Your task to perform on an android device: turn off notifications in google photos Image 0: 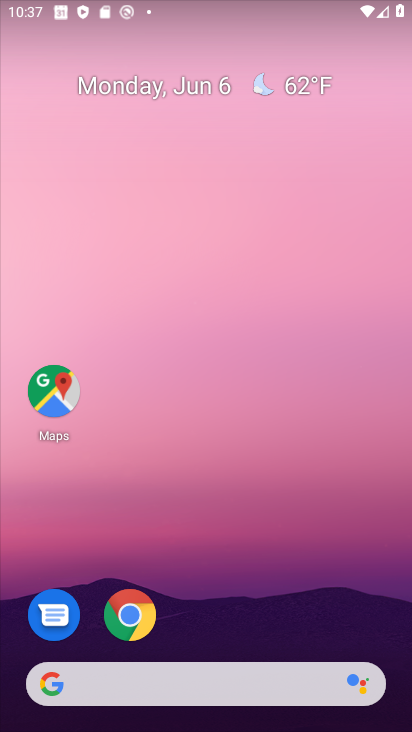
Step 0: drag from (246, 677) to (219, 120)
Your task to perform on an android device: turn off notifications in google photos Image 1: 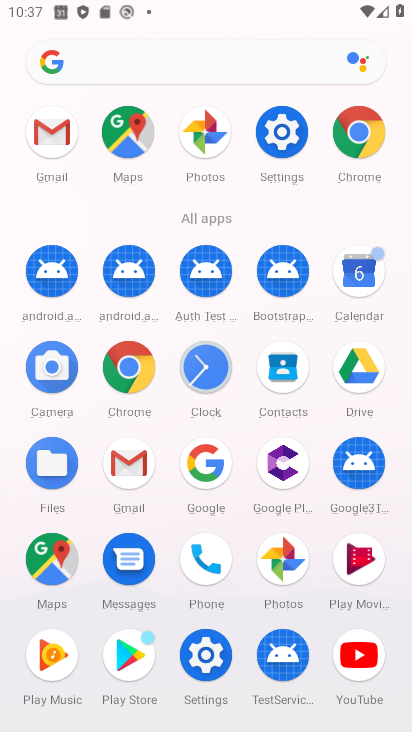
Step 1: click (284, 568)
Your task to perform on an android device: turn off notifications in google photos Image 2: 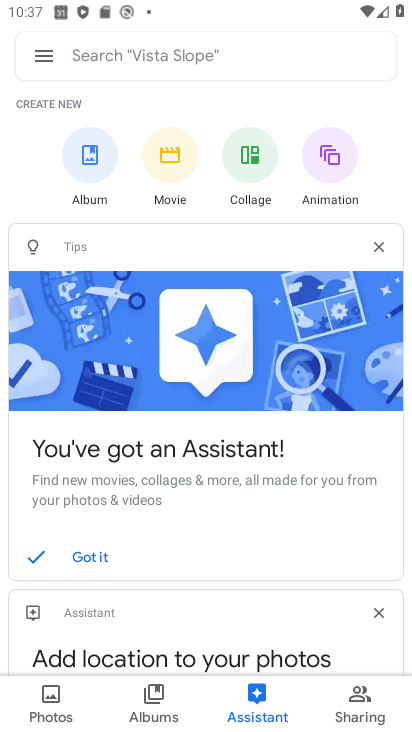
Step 2: click (42, 57)
Your task to perform on an android device: turn off notifications in google photos Image 3: 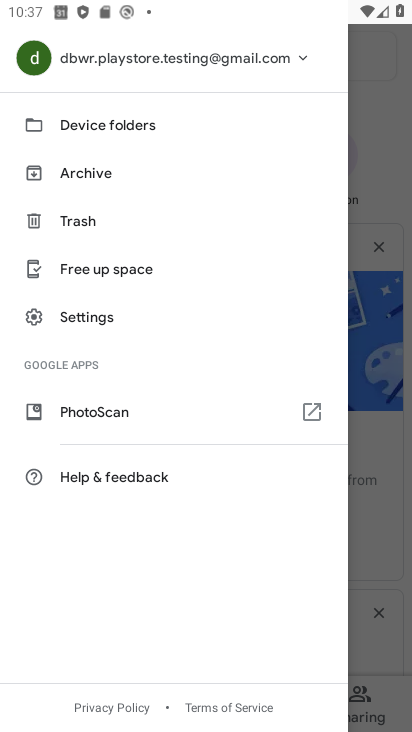
Step 3: click (74, 318)
Your task to perform on an android device: turn off notifications in google photos Image 4: 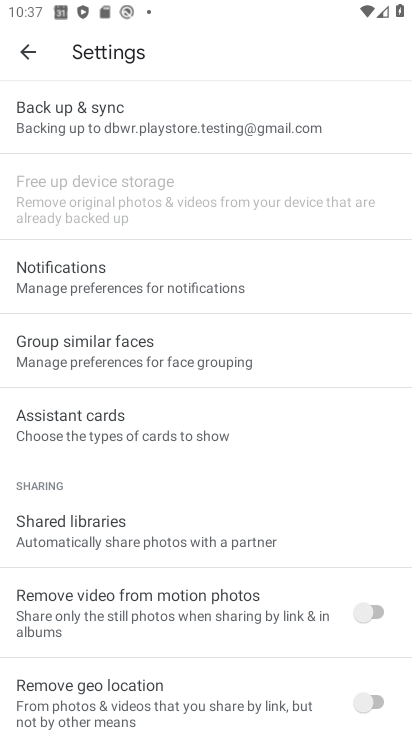
Step 4: click (72, 280)
Your task to perform on an android device: turn off notifications in google photos Image 5: 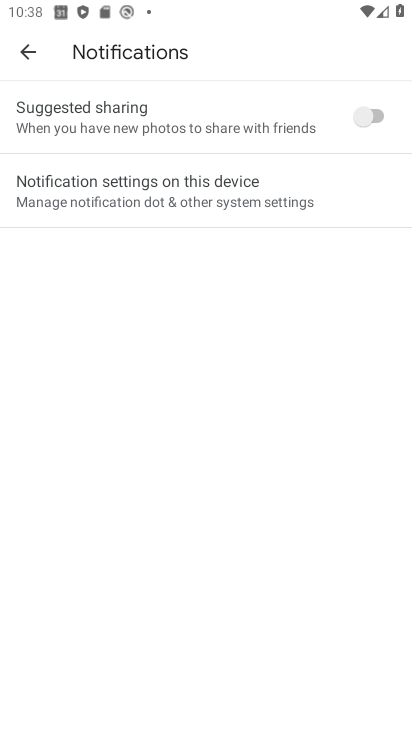
Step 5: click (72, 280)
Your task to perform on an android device: turn off notifications in google photos Image 6: 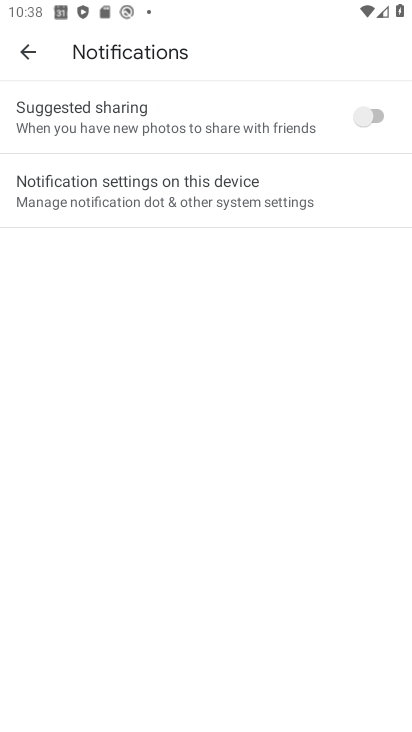
Step 6: click (275, 168)
Your task to perform on an android device: turn off notifications in google photos Image 7: 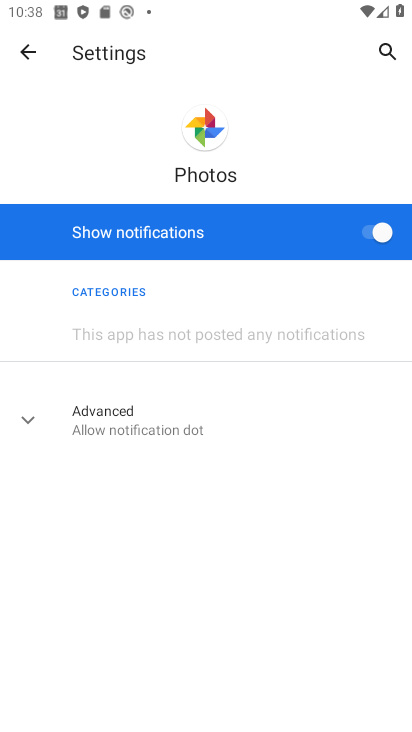
Step 7: click (388, 242)
Your task to perform on an android device: turn off notifications in google photos Image 8: 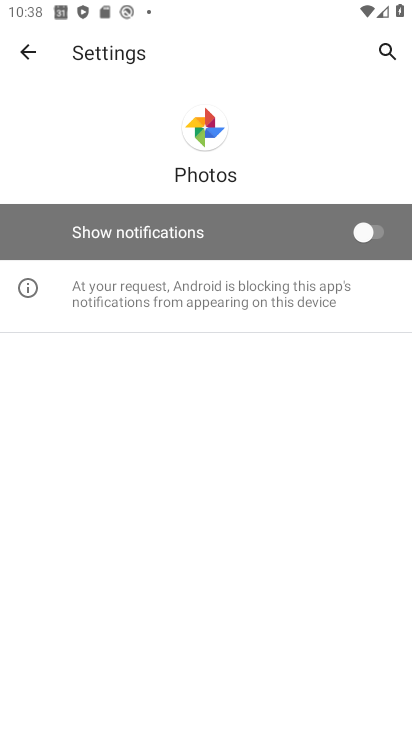
Step 8: task complete